Your task to perform on an android device: turn on location history Image 0: 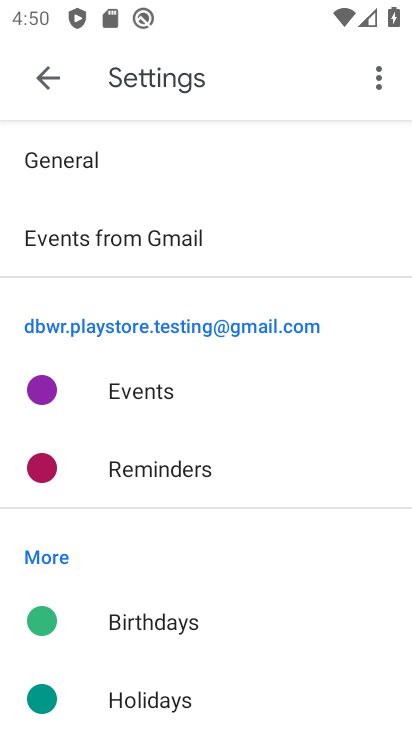
Step 0: press back button
Your task to perform on an android device: turn on location history Image 1: 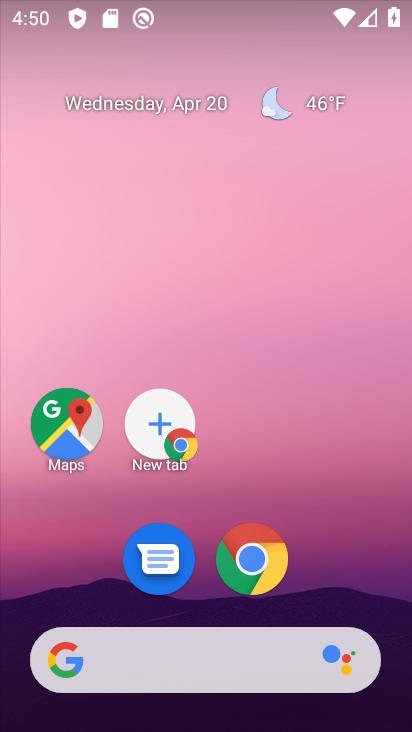
Step 1: drag from (330, 580) to (301, 149)
Your task to perform on an android device: turn on location history Image 2: 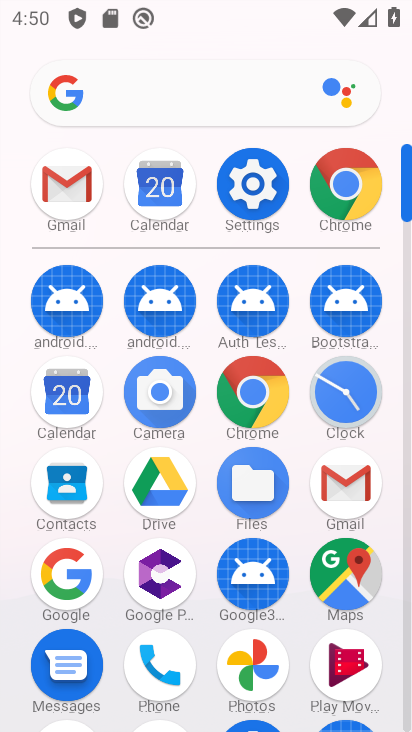
Step 2: click (261, 184)
Your task to perform on an android device: turn on location history Image 3: 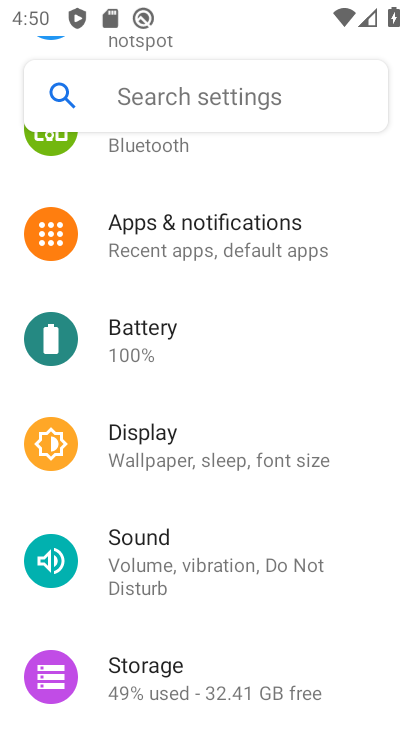
Step 3: drag from (180, 639) to (245, 274)
Your task to perform on an android device: turn on location history Image 4: 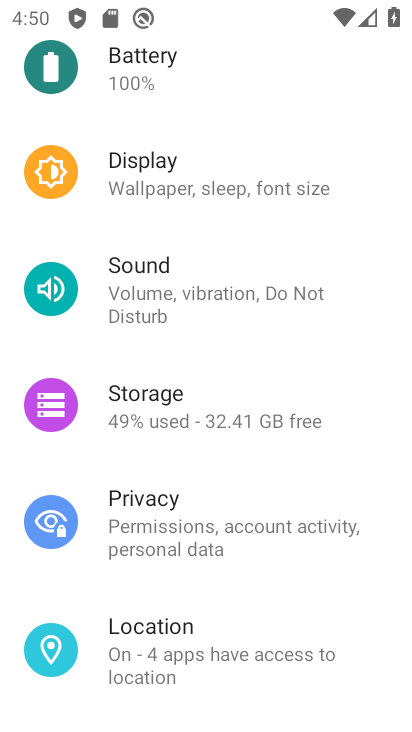
Step 4: click (205, 655)
Your task to perform on an android device: turn on location history Image 5: 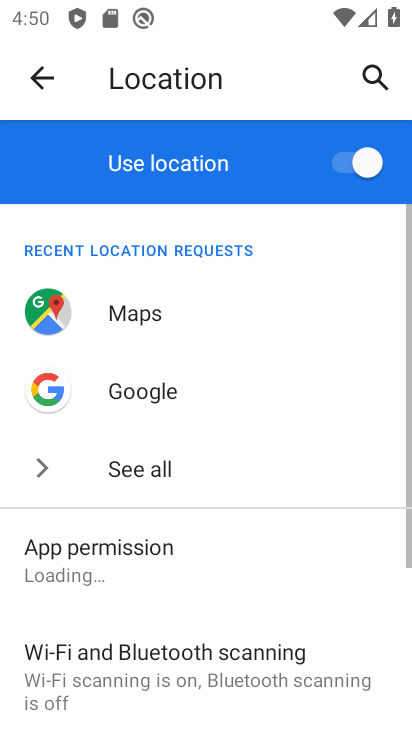
Step 5: drag from (205, 655) to (245, 404)
Your task to perform on an android device: turn on location history Image 6: 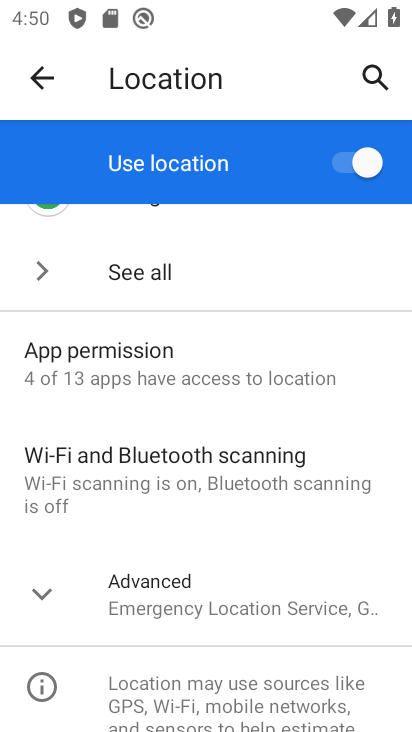
Step 6: click (181, 574)
Your task to perform on an android device: turn on location history Image 7: 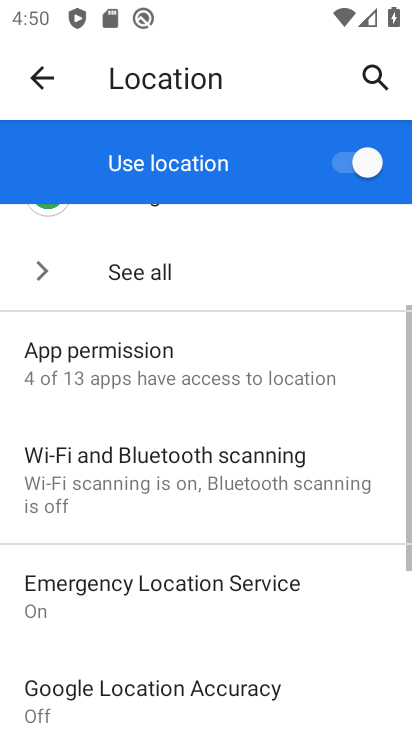
Step 7: drag from (181, 574) to (197, 281)
Your task to perform on an android device: turn on location history Image 8: 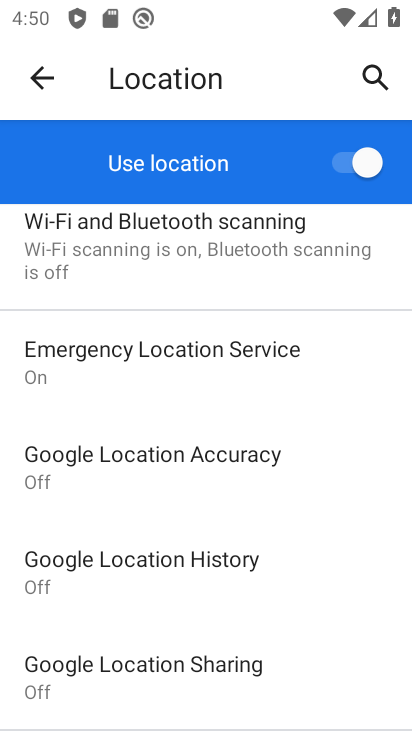
Step 8: click (162, 574)
Your task to perform on an android device: turn on location history Image 9: 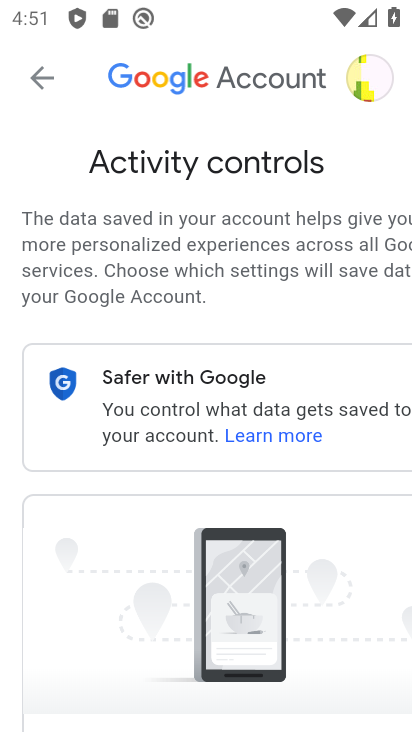
Step 9: drag from (163, 596) to (263, 175)
Your task to perform on an android device: turn on location history Image 10: 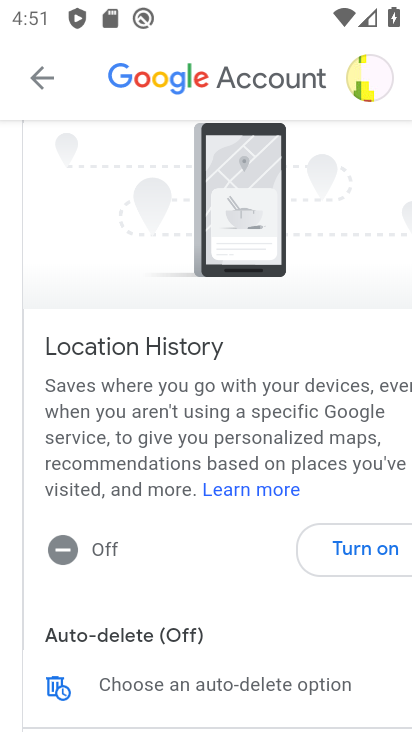
Step 10: click (337, 557)
Your task to perform on an android device: turn on location history Image 11: 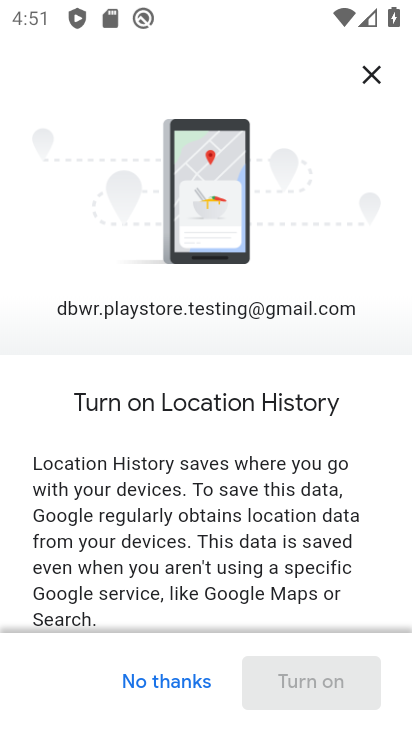
Step 11: drag from (322, 569) to (303, 177)
Your task to perform on an android device: turn on location history Image 12: 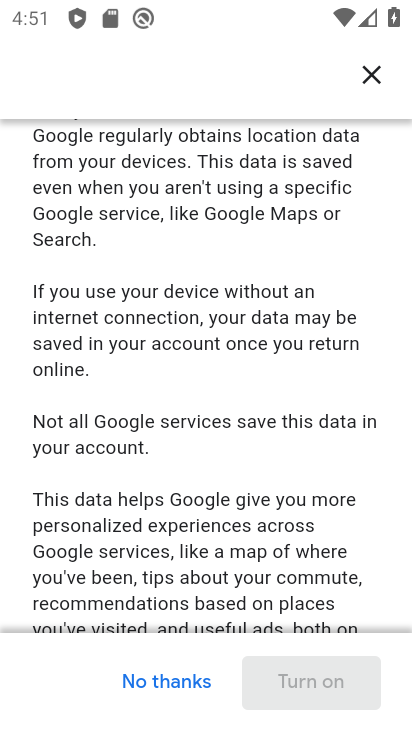
Step 12: drag from (266, 574) to (288, 214)
Your task to perform on an android device: turn on location history Image 13: 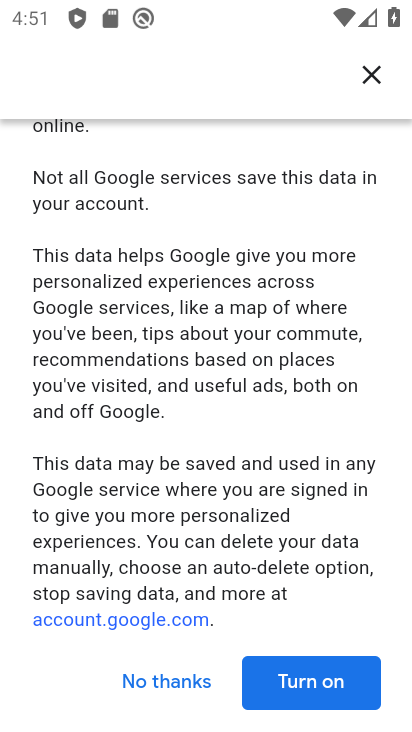
Step 13: click (298, 684)
Your task to perform on an android device: turn on location history Image 14: 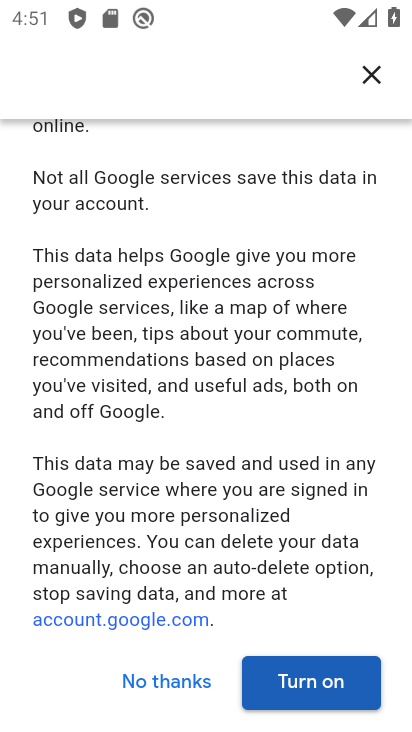
Step 14: click (317, 686)
Your task to perform on an android device: turn on location history Image 15: 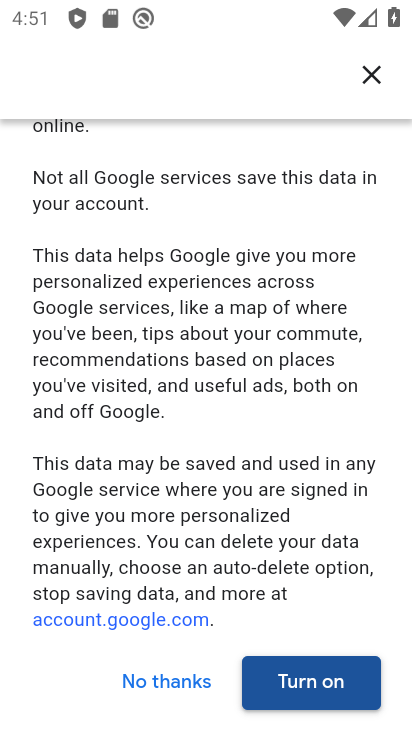
Step 15: task complete